Your task to perform on an android device: Open CNN.com Image 0: 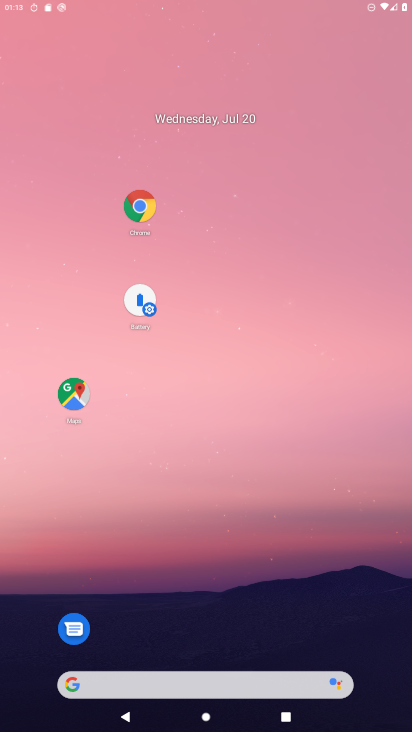
Step 0: click (337, 194)
Your task to perform on an android device: Open CNN.com Image 1: 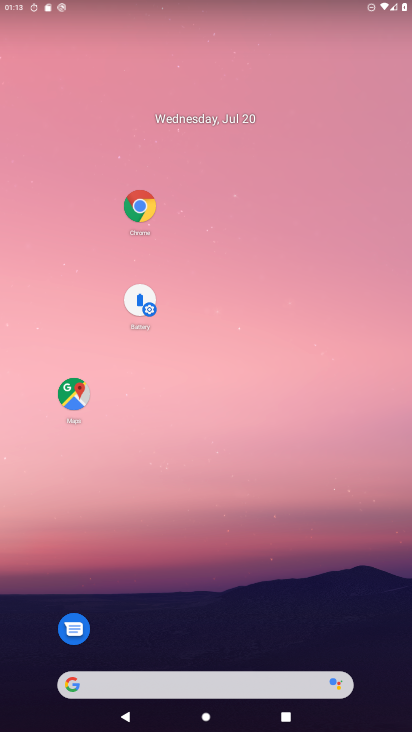
Step 1: drag from (168, 652) to (242, 135)
Your task to perform on an android device: Open CNN.com Image 2: 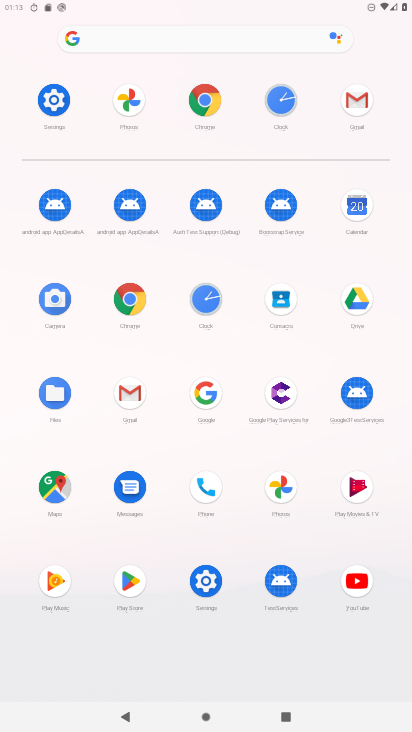
Step 2: click (229, 37)
Your task to perform on an android device: Open CNN.com Image 3: 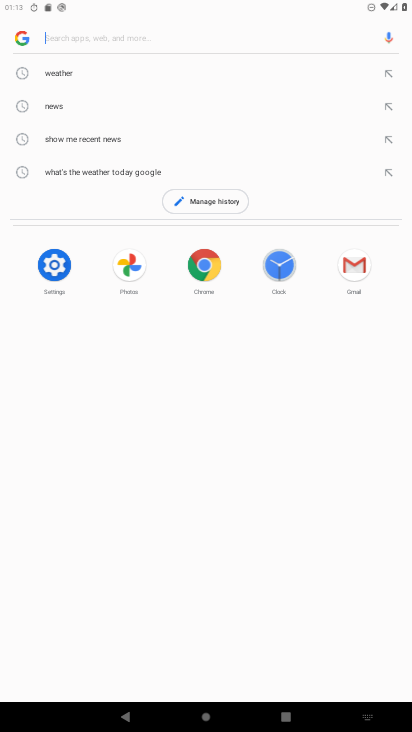
Step 3: type "cnn.com"
Your task to perform on an android device: Open CNN.com Image 4: 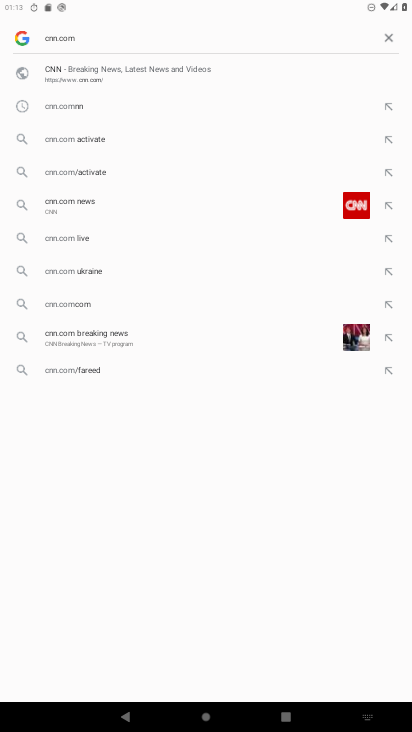
Step 4: click (104, 74)
Your task to perform on an android device: Open CNN.com Image 5: 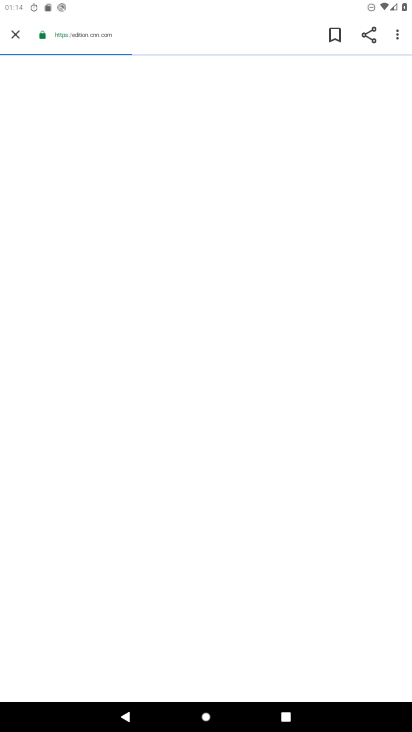
Step 5: task complete